Your task to perform on an android device: Open settings Image 0: 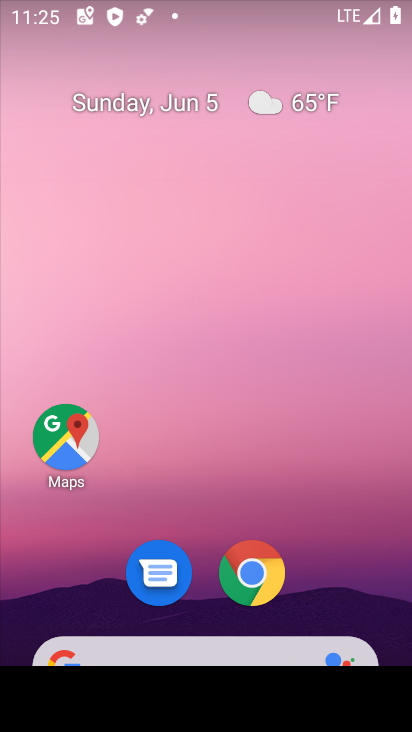
Step 0: drag from (244, 497) to (251, 46)
Your task to perform on an android device: Open settings Image 1: 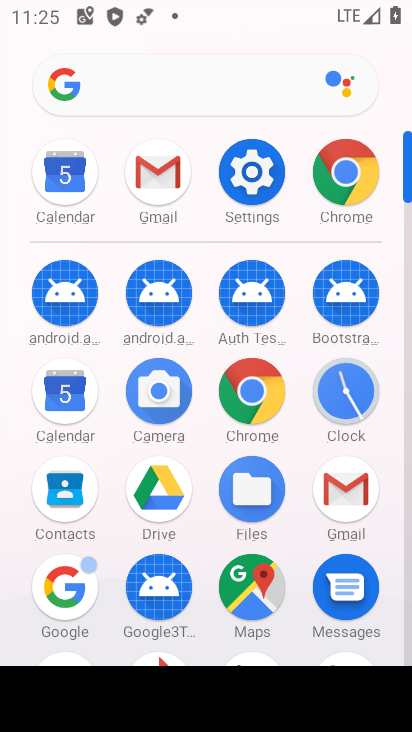
Step 1: click (235, 175)
Your task to perform on an android device: Open settings Image 2: 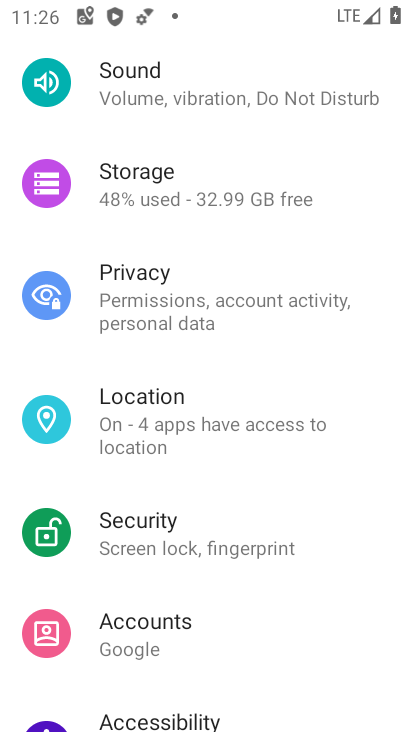
Step 2: task complete